Your task to perform on an android device: open a bookmark in the chrome app Image 0: 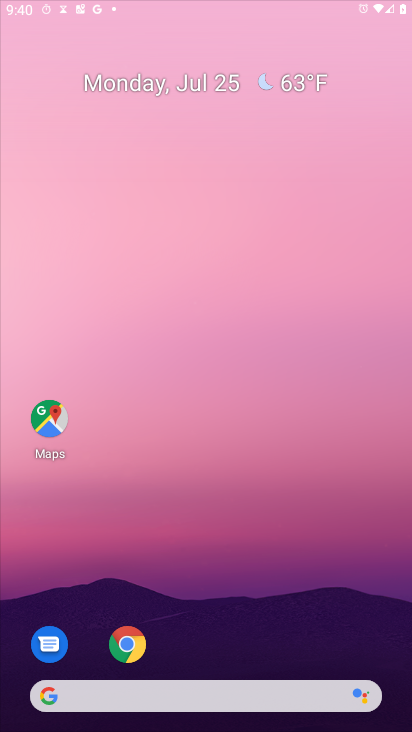
Step 0: drag from (257, 590) to (174, 69)
Your task to perform on an android device: open a bookmark in the chrome app Image 1: 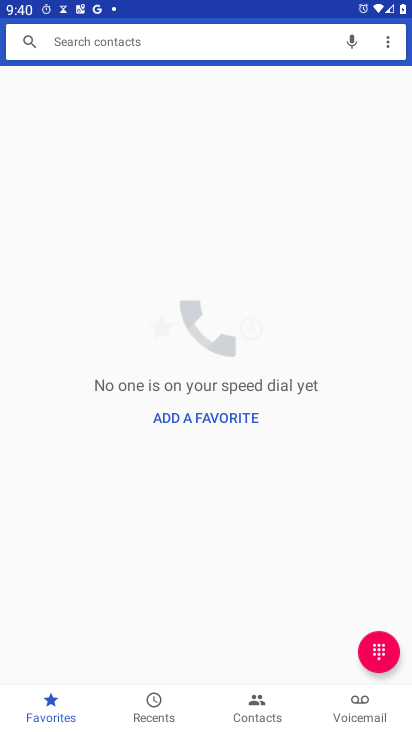
Step 1: drag from (95, 369) to (172, 37)
Your task to perform on an android device: open a bookmark in the chrome app Image 2: 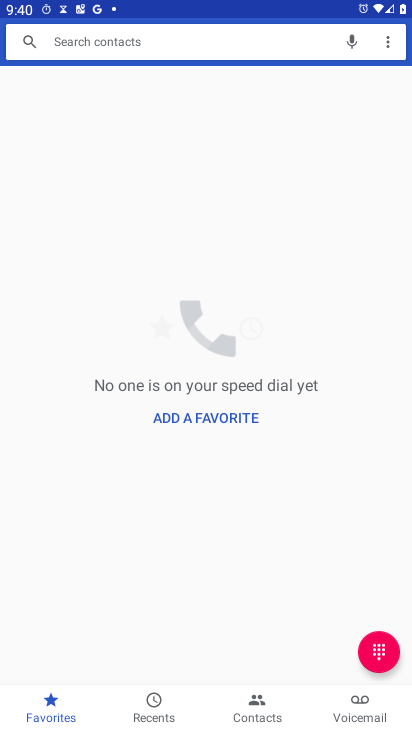
Step 2: drag from (351, 608) to (321, 99)
Your task to perform on an android device: open a bookmark in the chrome app Image 3: 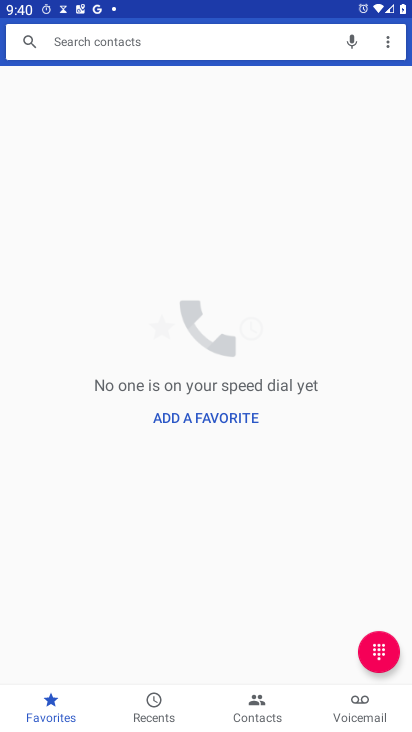
Step 3: press back button
Your task to perform on an android device: open a bookmark in the chrome app Image 4: 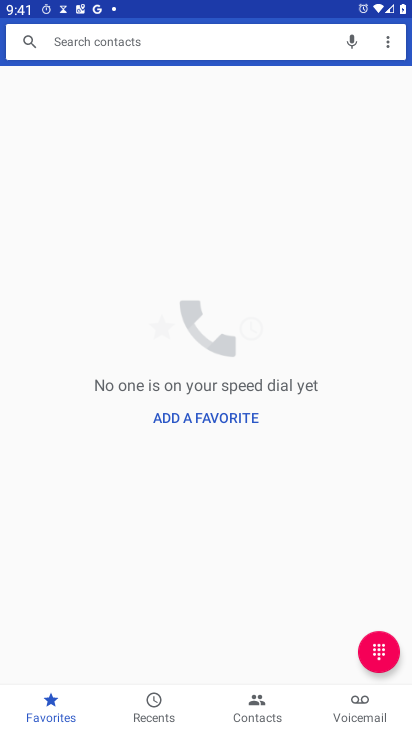
Step 4: press back button
Your task to perform on an android device: open a bookmark in the chrome app Image 5: 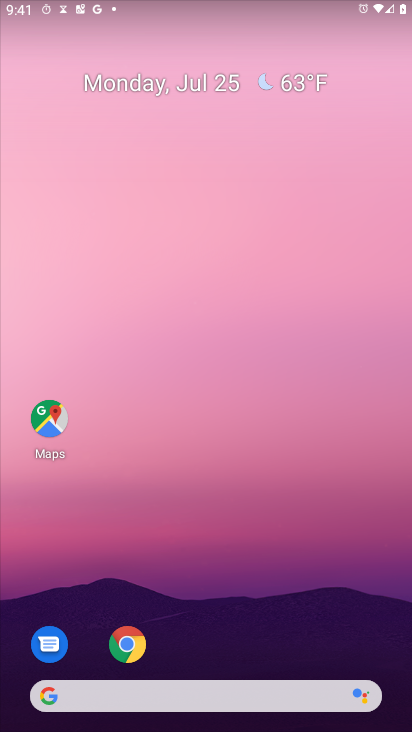
Step 5: drag from (225, 530) to (214, 23)
Your task to perform on an android device: open a bookmark in the chrome app Image 6: 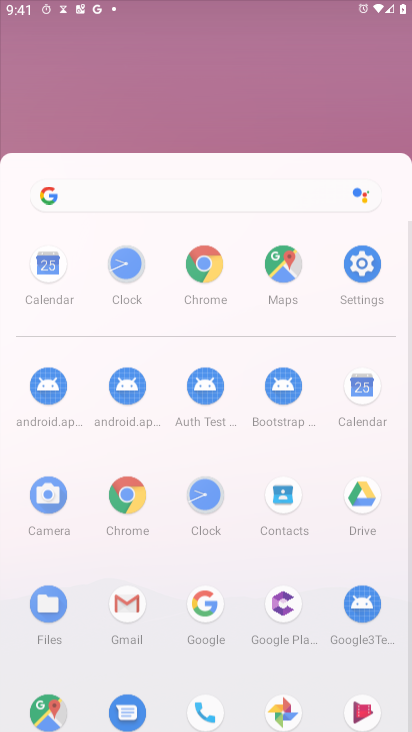
Step 6: drag from (291, 549) to (195, 80)
Your task to perform on an android device: open a bookmark in the chrome app Image 7: 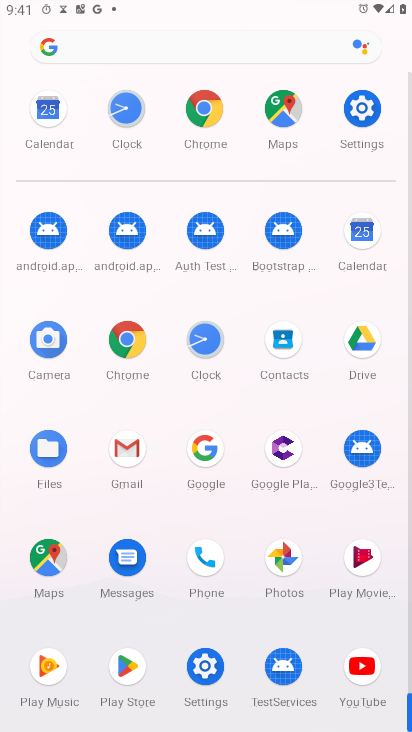
Step 7: click (48, 559)
Your task to perform on an android device: open a bookmark in the chrome app Image 8: 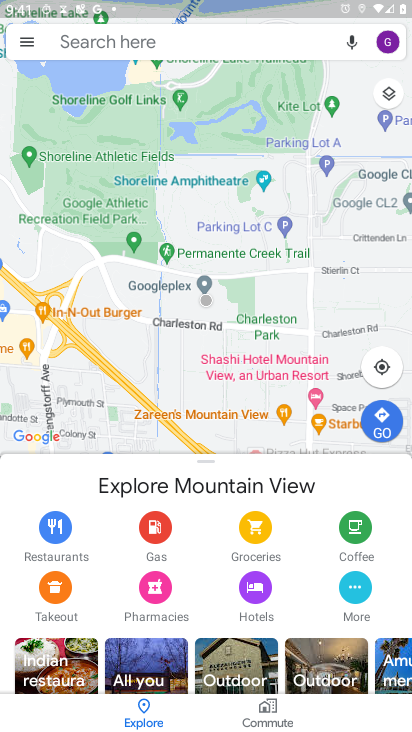
Step 8: press back button
Your task to perform on an android device: open a bookmark in the chrome app Image 9: 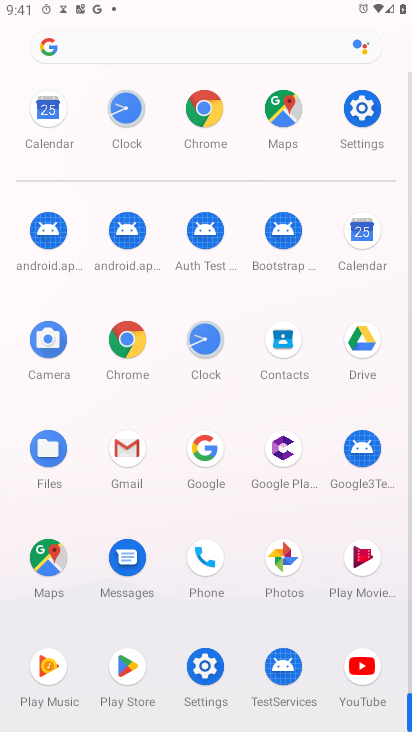
Step 9: click (113, 344)
Your task to perform on an android device: open a bookmark in the chrome app Image 10: 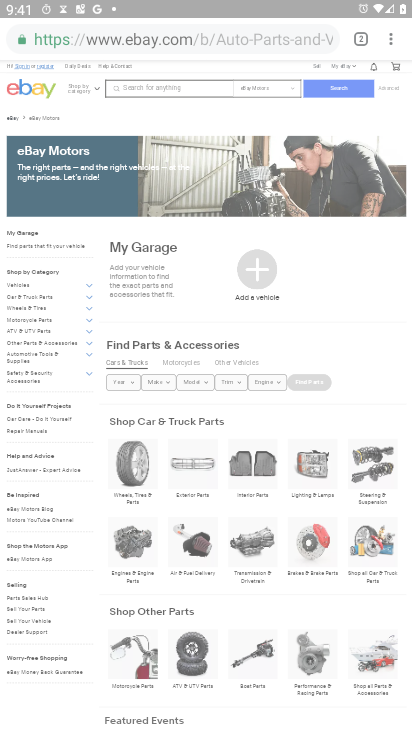
Step 10: click (160, 337)
Your task to perform on an android device: open a bookmark in the chrome app Image 11: 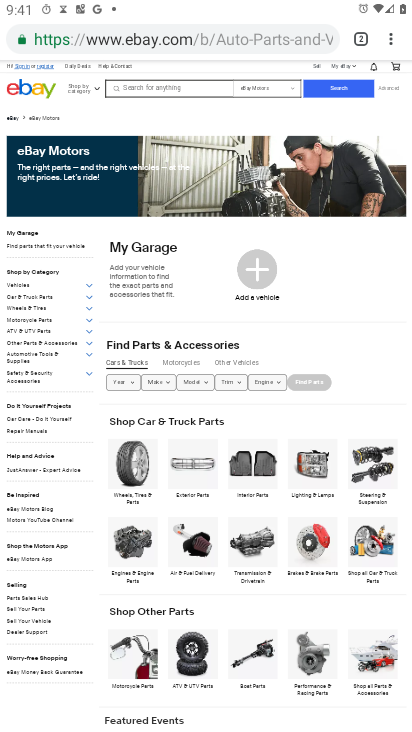
Step 11: click (395, 38)
Your task to perform on an android device: open a bookmark in the chrome app Image 12: 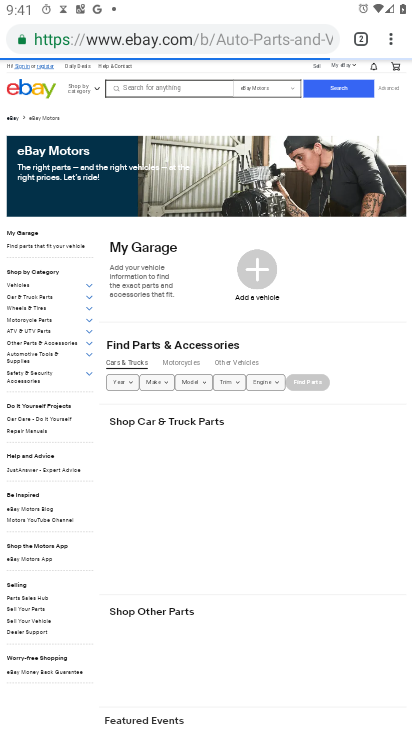
Step 12: drag from (386, 47) to (270, 152)
Your task to perform on an android device: open a bookmark in the chrome app Image 13: 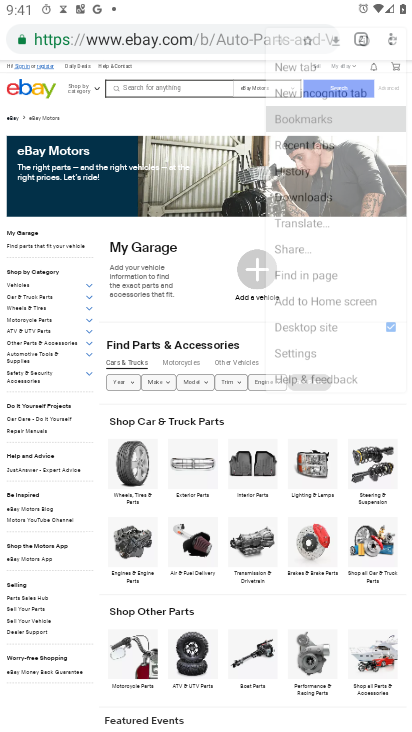
Step 13: click (276, 149)
Your task to perform on an android device: open a bookmark in the chrome app Image 14: 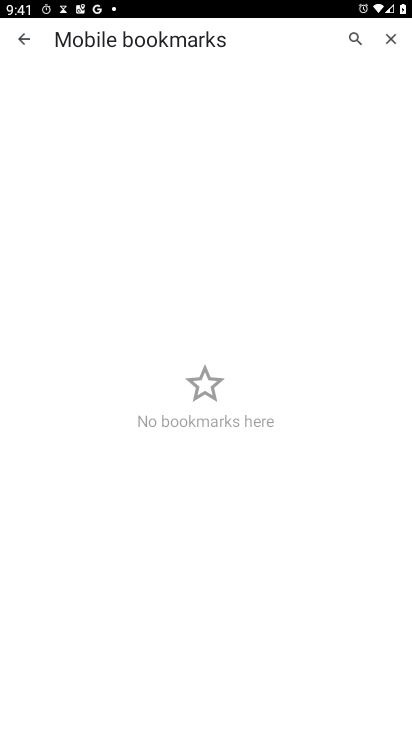
Step 14: task complete